Your task to perform on an android device: Go to Amazon Image 0: 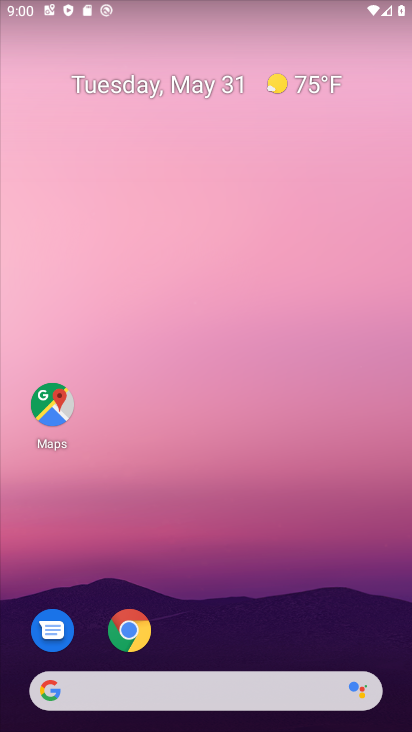
Step 0: drag from (252, 536) to (276, 200)
Your task to perform on an android device: Go to Amazon Image 1: 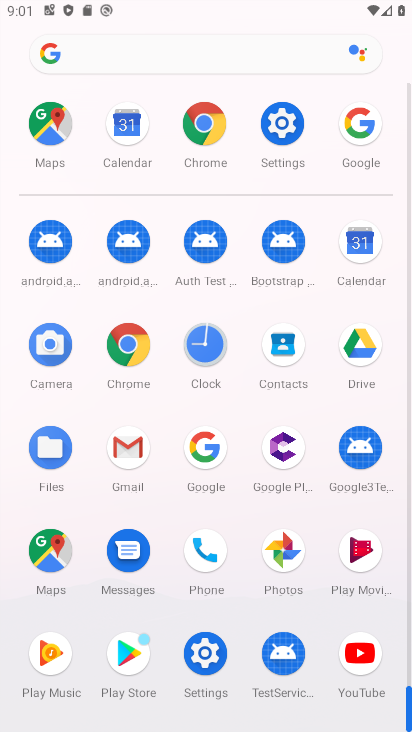
Step 1: click (135, 367)
Your task to perform on an android device: Go to Amazon Image 2: 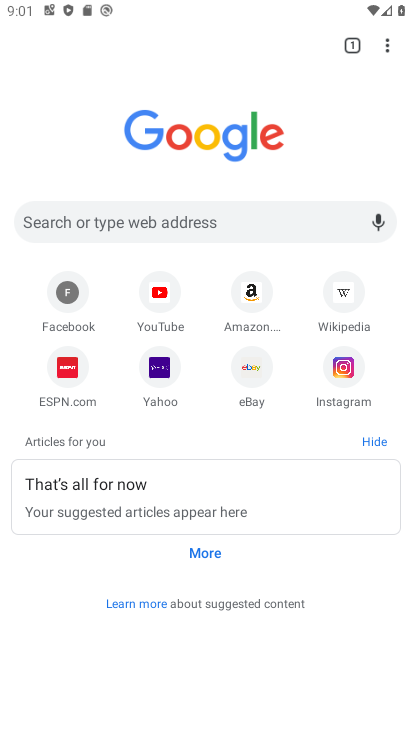
Step 2: click (250, 296)
Your task to perform on an android device: Go to Amazon Image 3: 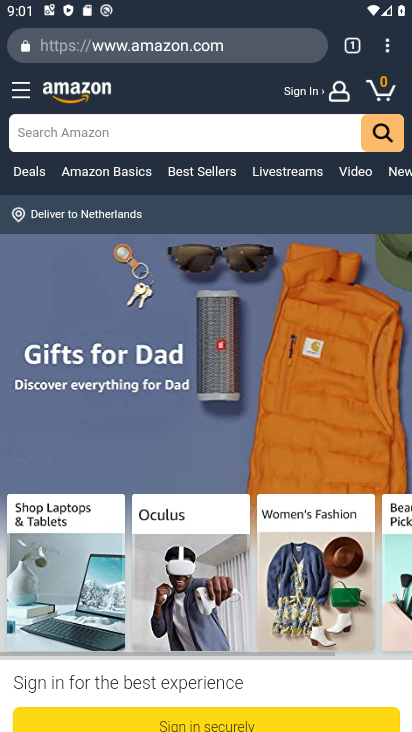
Step 3: task complete